Your task to perform on an android device: delete the emails in spam in the gmail app Image 0: 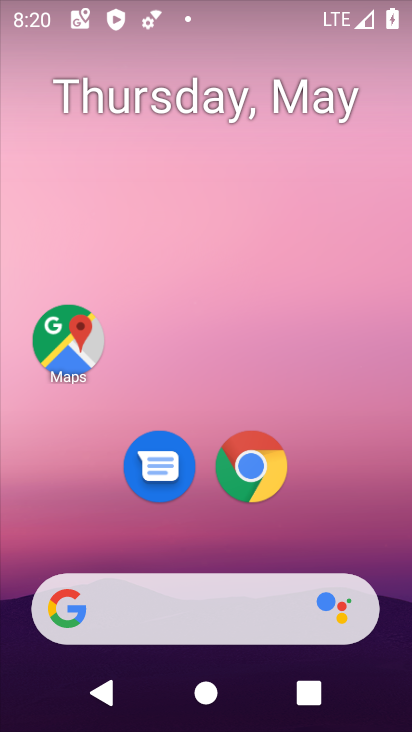
Step 0: drag from (384, 589) to (315, 10)
Your task to perform on an android device: delete the emails in spam in the gmail app Image 1: 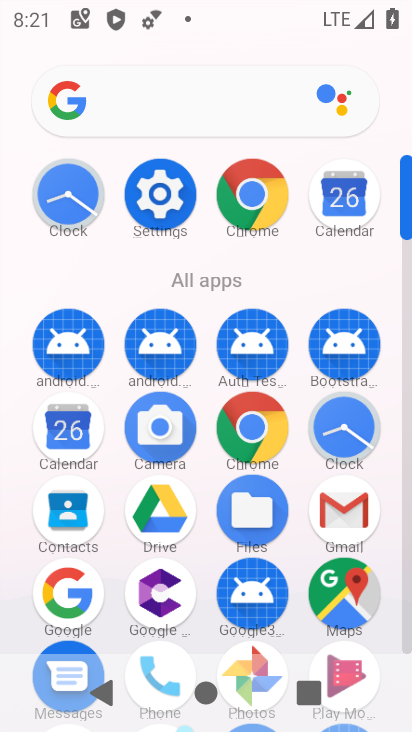
Step 1: click (340, 501)
Your task to perform on an android device: delete the emails in spam in the gmail app Image 2: 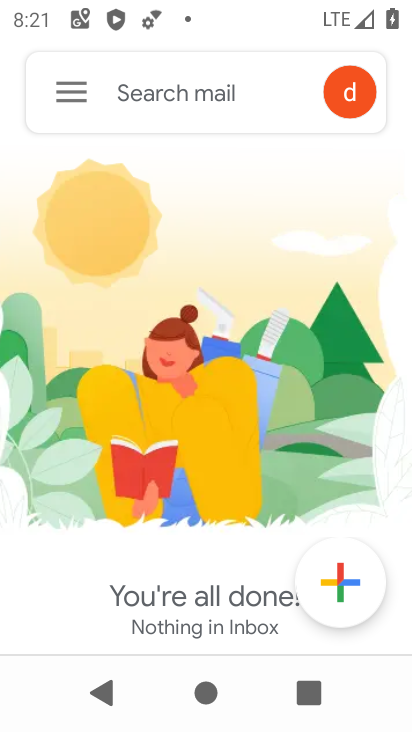
Step 2: click (59, 95)
Your task to perform on an android device: delete the emails in spam in the gmail app Image 3: 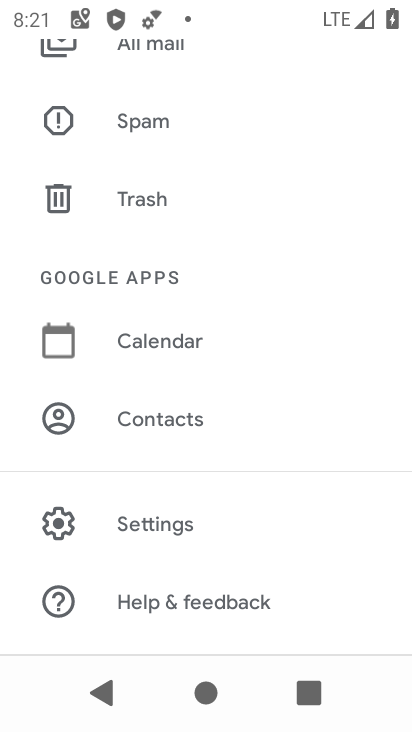
Step 3: drag from (257, 530) to (272, 138)
Your task to perform on an android device: delete the emails in spam in the gmail app Image 4: 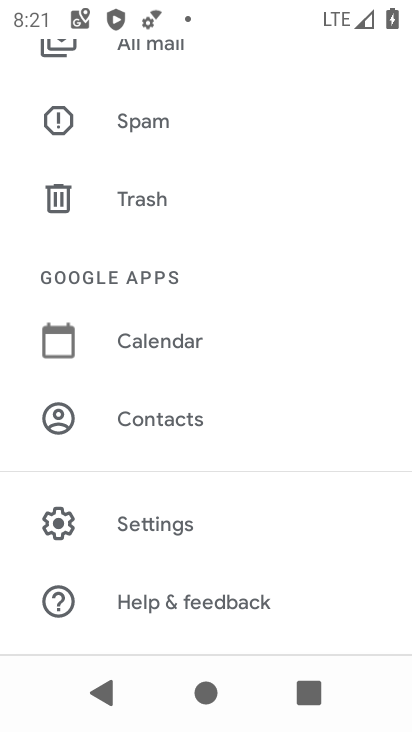
Step 4: click (157, 124)
Your task to perform on an android device: delete the emails in spam in the gmail app Image 5: 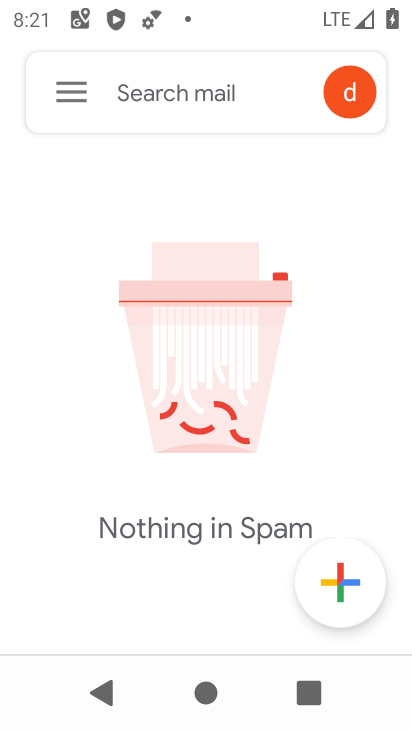
Step 5: task complete